Your task to perform on an android device: create a new album in the google photos Image 0: 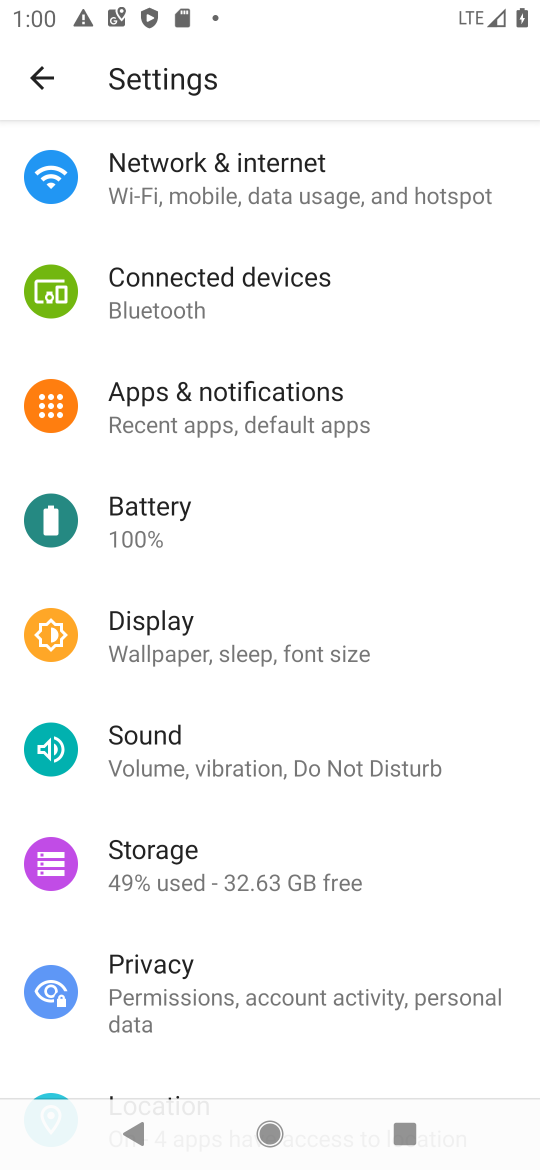
Step 0: press home button
Your task to perform on an android device: create a new album in the google photos Image 1: 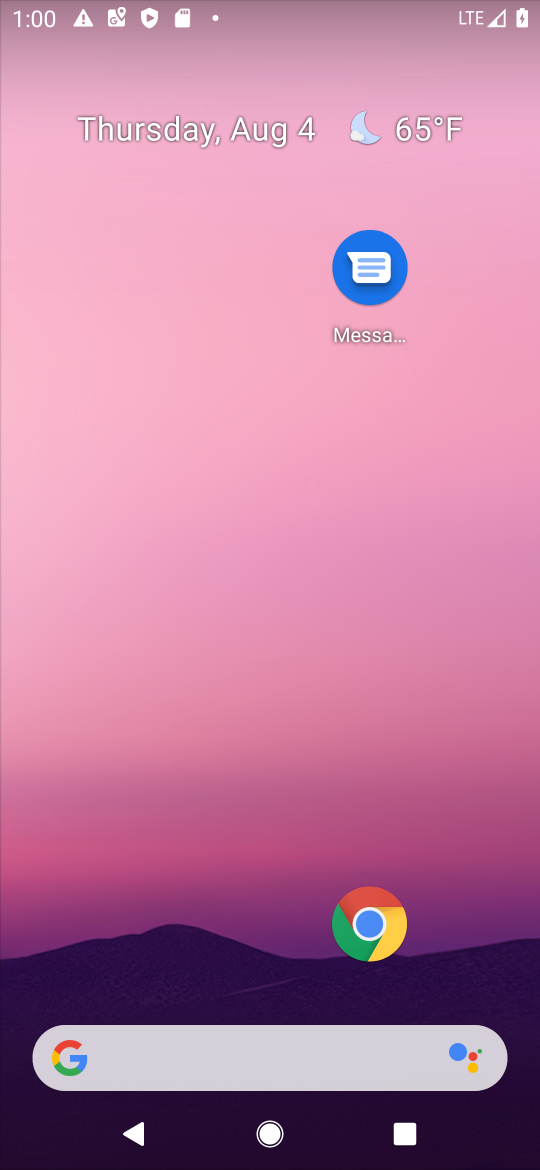
Step 1: drag from (215, 572) to (286, 306)
Your task to perform on an android device: create a new album in the google photos Image 2: 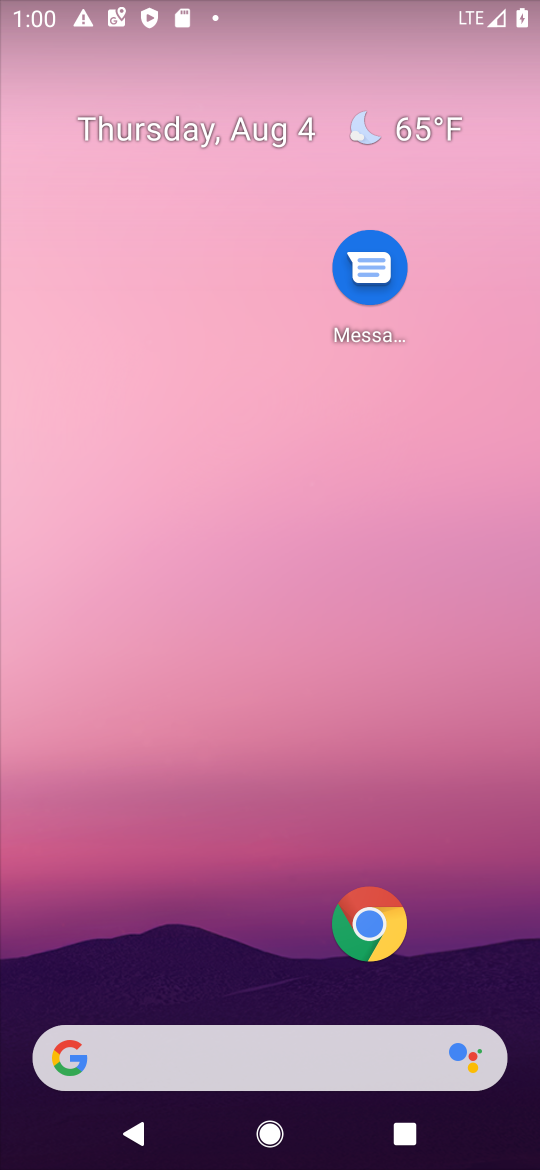
Step 2: drag from (130, 979) to (293, 138)
Your task to perform on an android device: create a new album in the google photos Image 3: 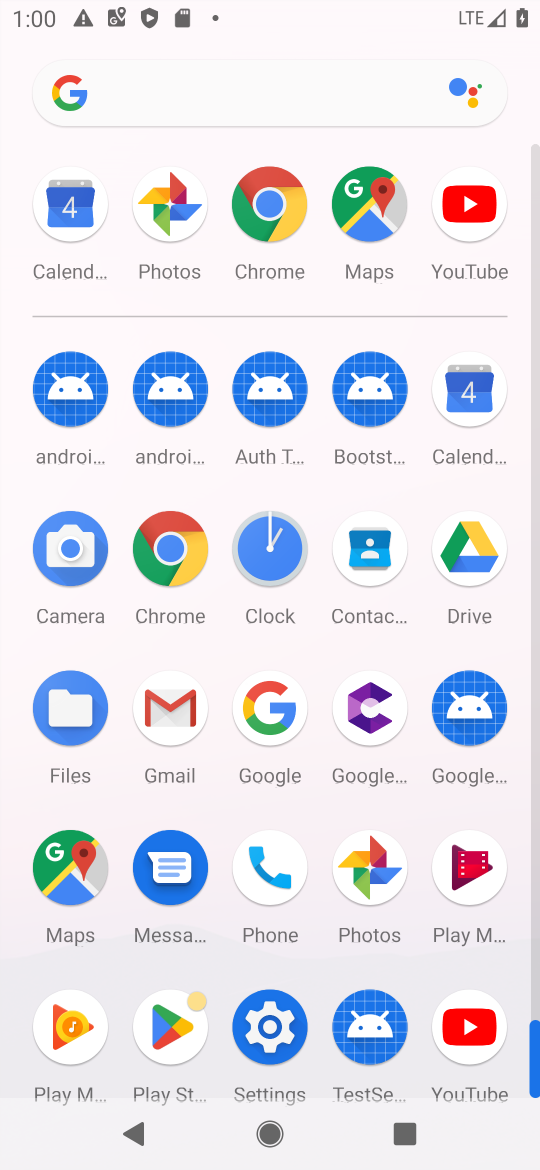
Step 3: click (154, 185)
Your task to perform on an android device: create a new album in the google photos Image 4: 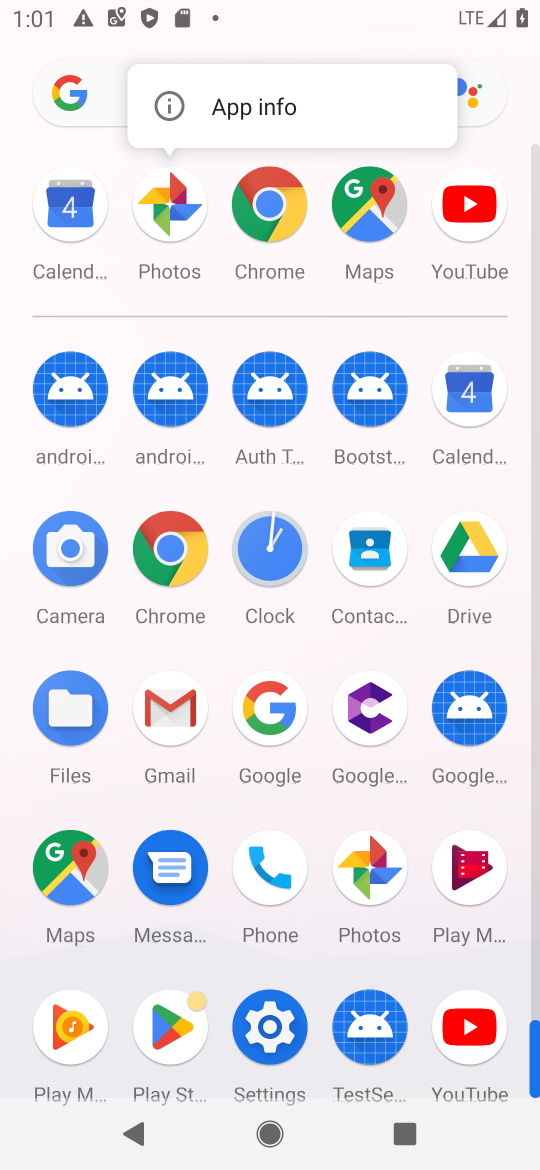
Step 4: click (181, 223)
Your task to perform on an android device: create a new album in the google photos Image 5: 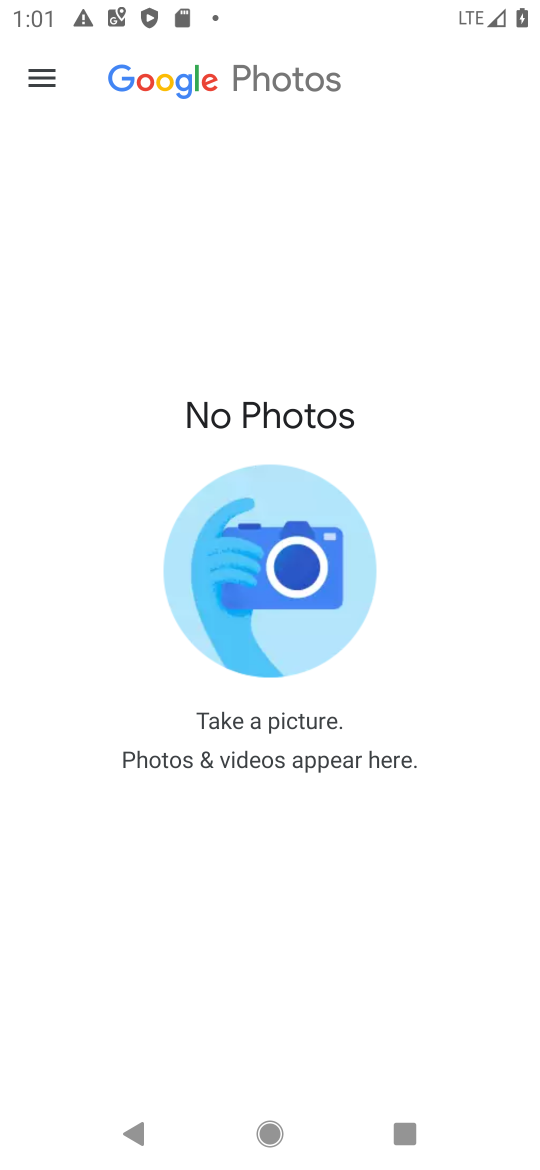
Step 5: task complete